Your task to perform on an android device: Go to battery settings Image 0: 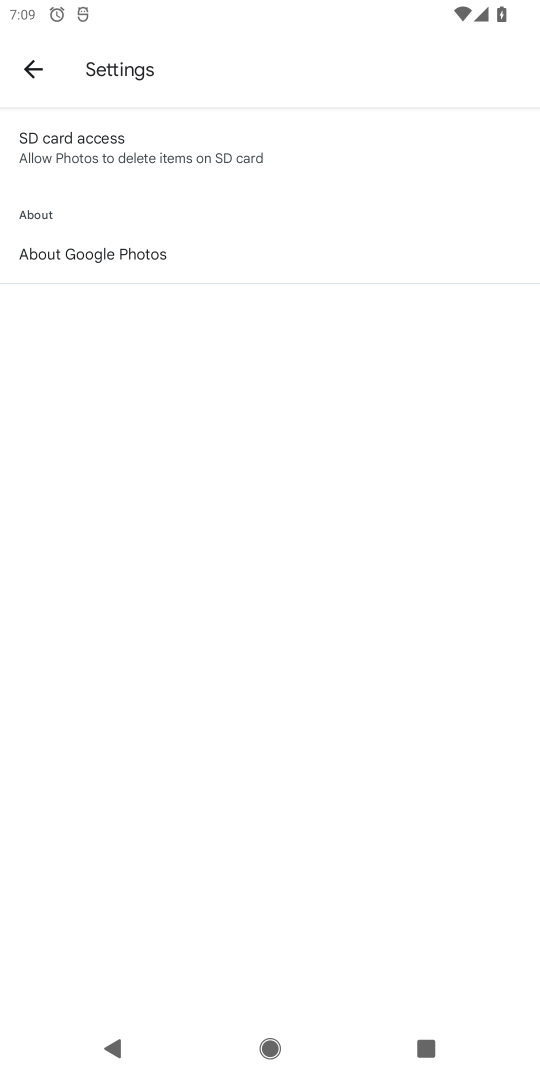
Step 0: press home button
Your task to perform on an android device: Go to battery settings Image 1: 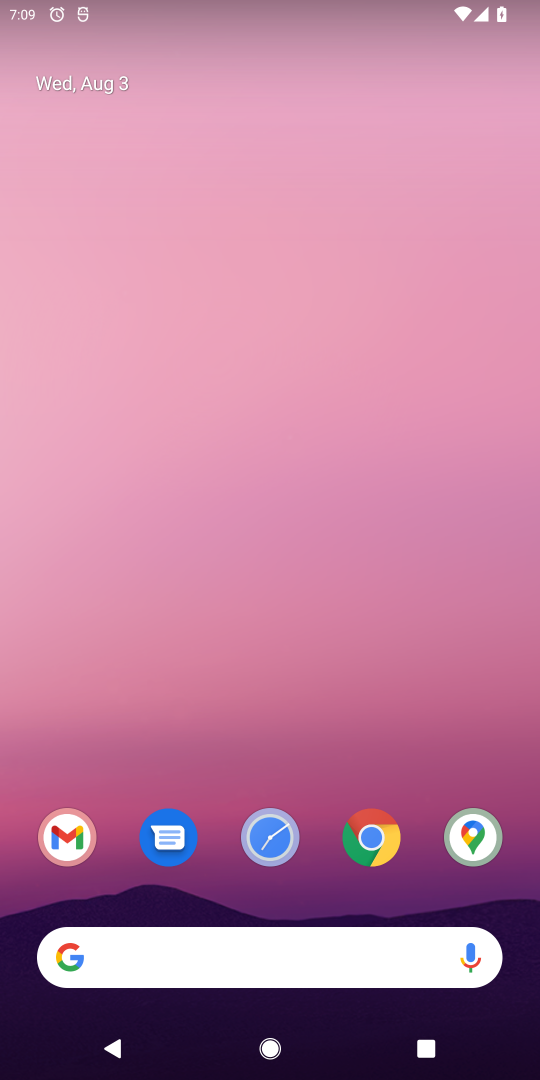
Step 1: drag from (316, 740) to (350, 119)
Your task to perform on an android device: Go to battery settings Image 2: 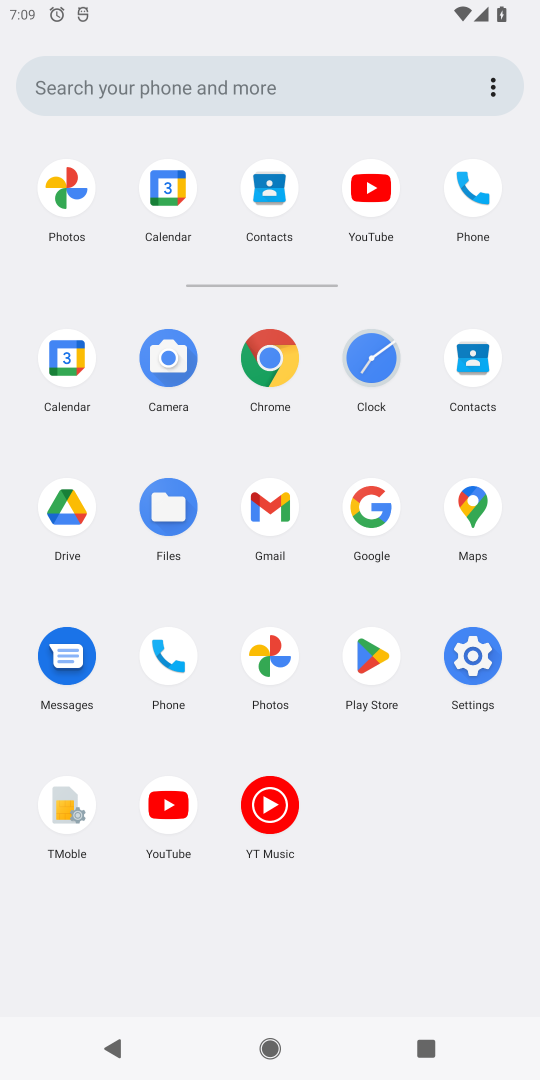
Step 2: click (474, 656)
Your task to perform on an android device: Go to battery settings Image 3: 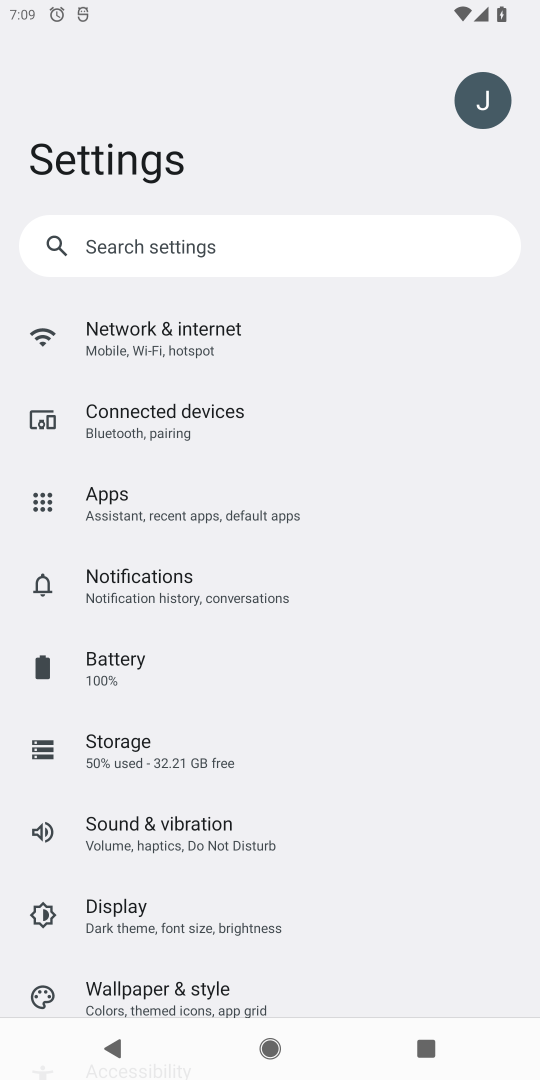
Step 3: click (177, 675)
Your task to perform on an android device: Go to battery settings Image 4: 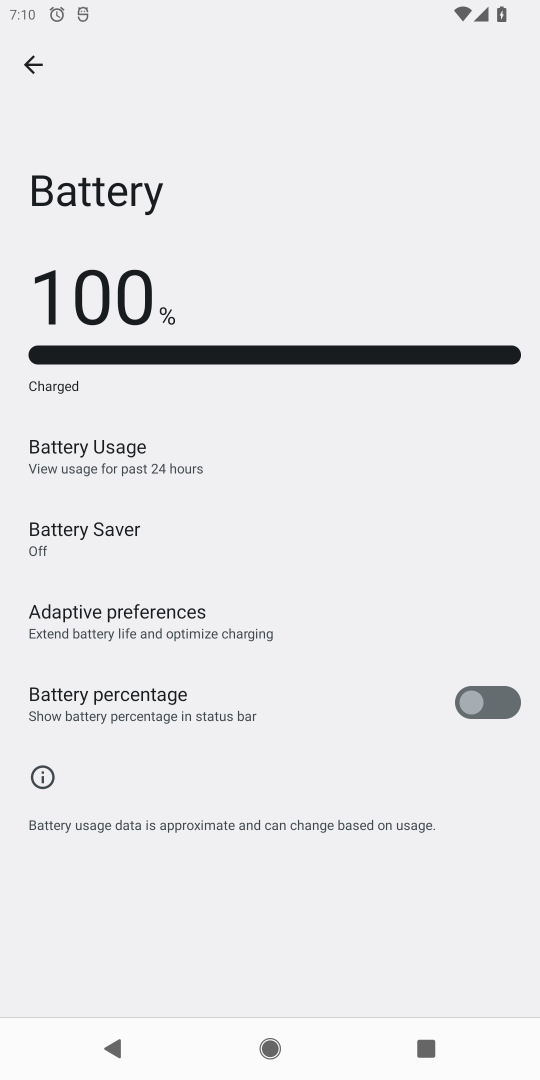
Step 4: task complete